Your task to perform on an android device: see sites visited before in the chrome app Image 0: 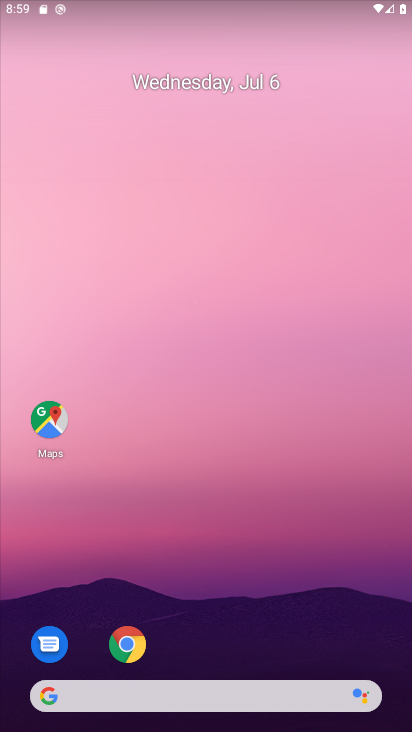
Step 0: drag from (197, 639) to (289, 144)
Your task to perform on an android device: see sites visited before in the chrome app Image 1: 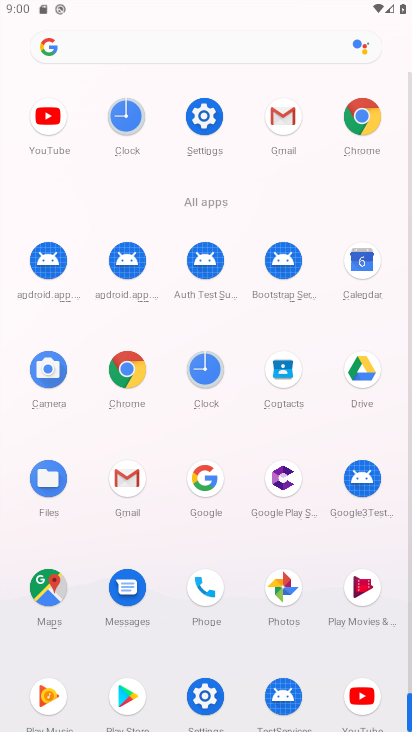
Step 1: click (369, 124)
Your task to perform on an android device: see sites visited before in the chrome app Image 2: 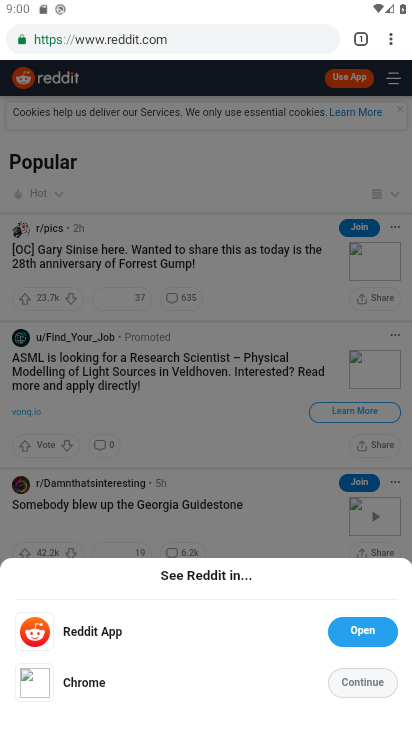
Step 2: click (390, 37)
Your task to perform on an android device: see sites visited before in the chrome app Image 3: 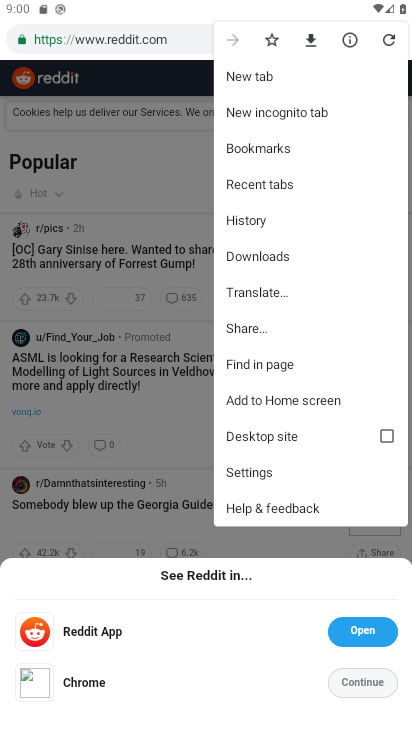
Step 3: click (255, 213)
Your task to perform on an android device: see sites visited before in the chrome app Image 4: 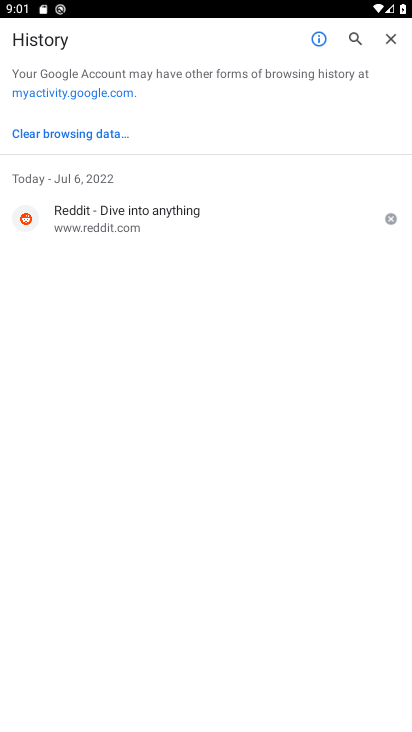
Step 4: task complete